Your task to perform on an android device: manage bookmarks in the chrome app Image 0: 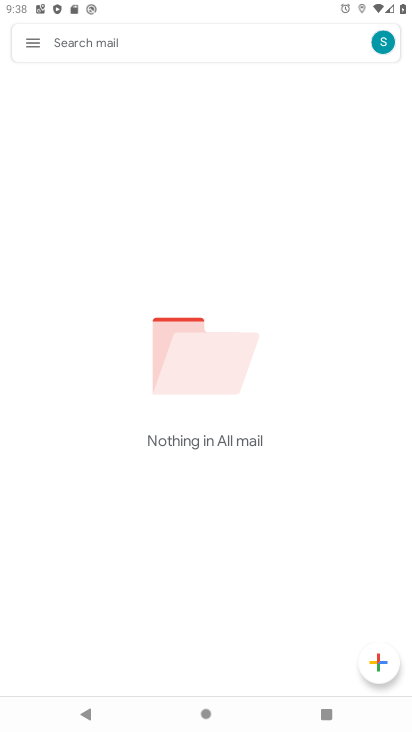
Step 0: press home button
Your task to perform on an android device: manage bookmarks in the chrome app Image 1: 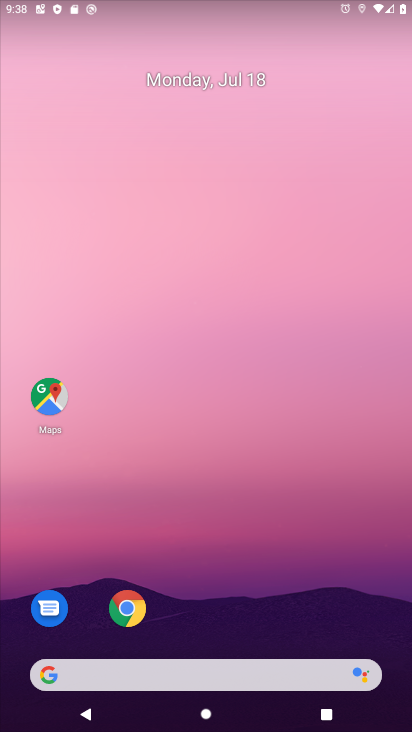
Step 1: click (120, 618)
Your task to perform on an android device: manage bookmarks in the chrome app Image 2: 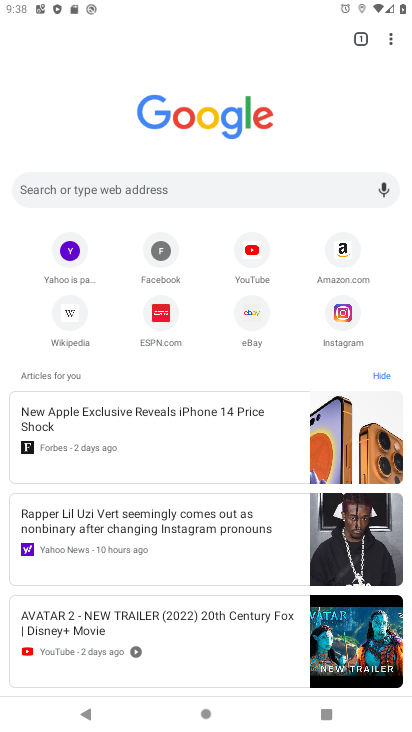
Step 2: click (392, 35)
Your task to perform on an android device: manage bookmarks in the chrome app Image 3: 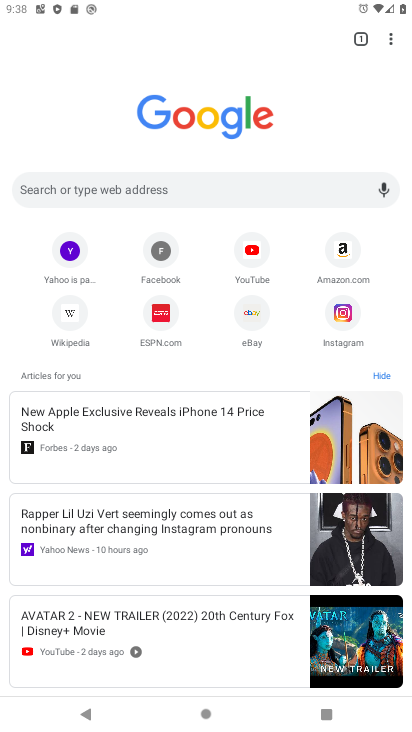
Step 3: click (392, 35)
Your task to perform on an android device: manage bookmarks in the chrome app Image 4: 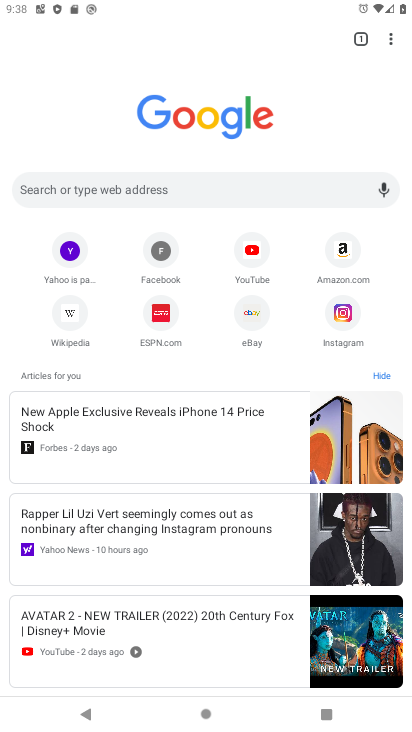
Step 4: click (396, 35)
Your task to perform on an android device: manage bookmarks in the chrome app Image 5: 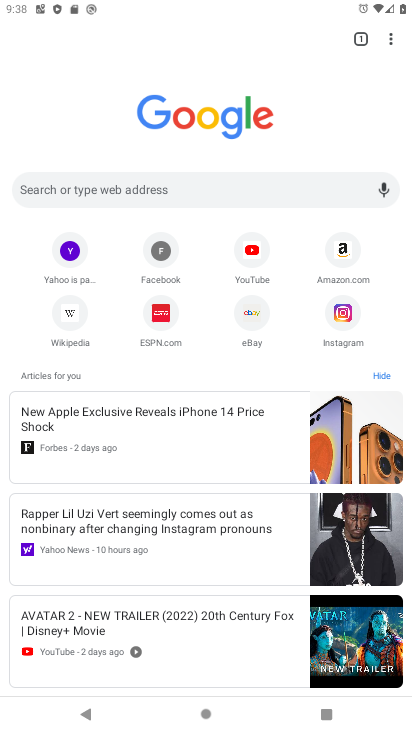
Step 5: click (386, 34)
Your task to perform on an android device: manage bookmarks in the chrome app Image 6: 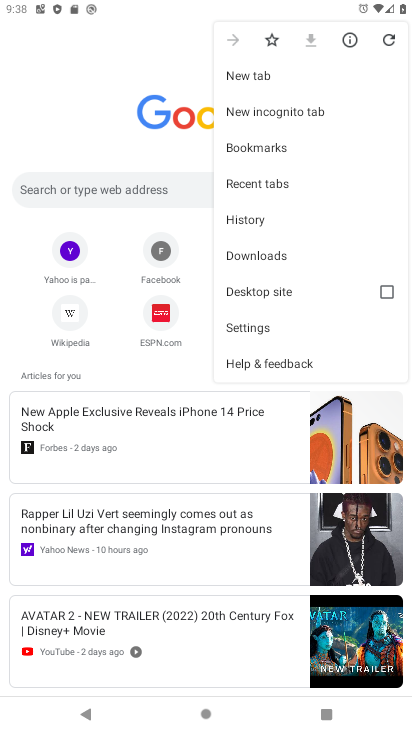
Step 6: click (263, 145)
Your task to perform on an android device: manage bookmarks in the chrome app Image 7: 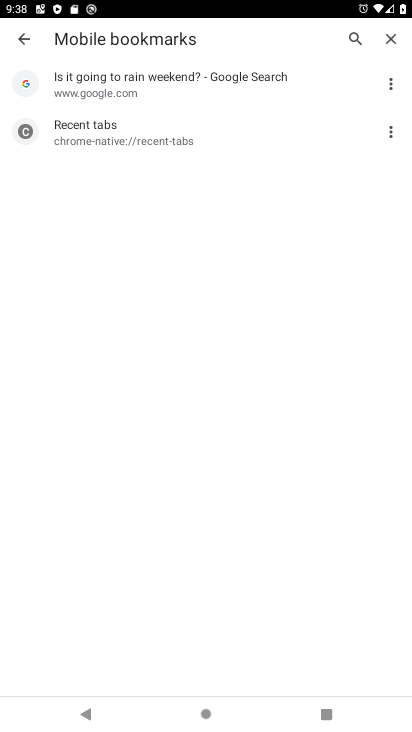
Step 7: task complete